Your task to perform on an android device: turn off notifications in google photos Image 0: 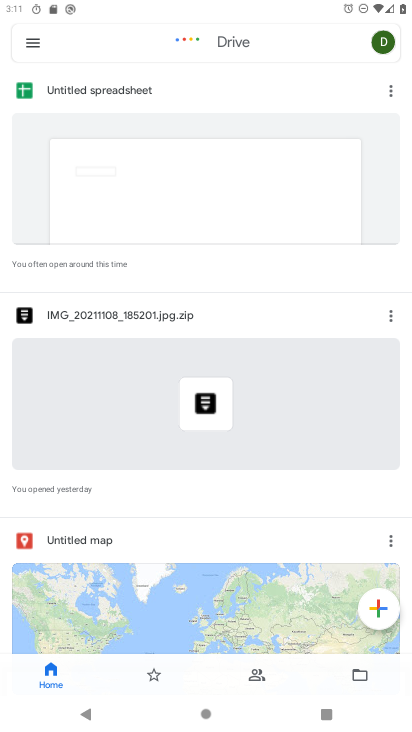
Step 0: press home button
Your task to perform on an android device: turn off notifications in google photos Image 1: 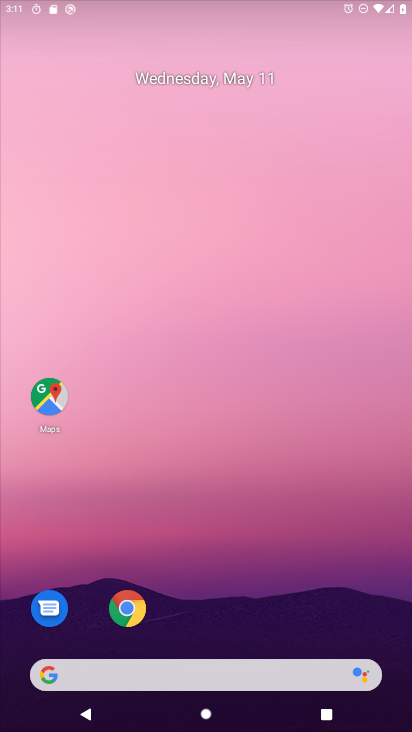
Step 1: drag from (239, 562) to (373, 85)
Your task to perform on an android device: turn off notifications in google photos Image 2: 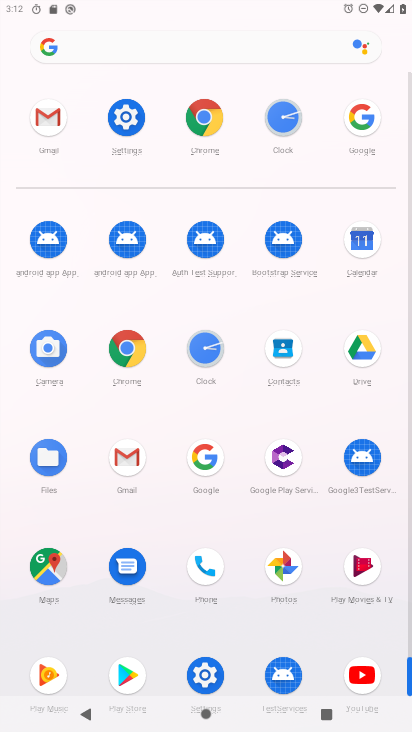
Step 2: click (286, 559)
Your task to perform on an android device: turn off notifications in google photos Image 3: 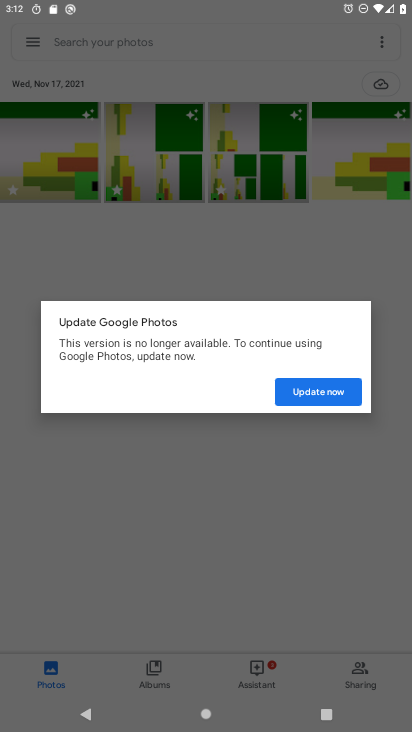
Step 3: task complete